Your task to perform on an android device: Search for pizza restaurants on Maps Image 0: 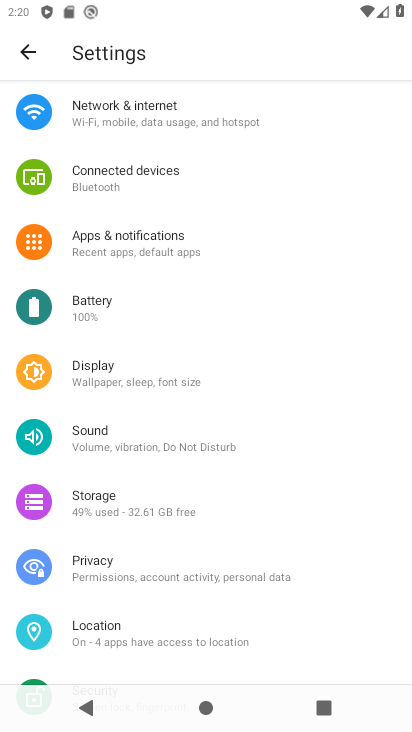
Step 0: press home button
Your task to perform on an android device: Search for pizza restaurants on Maps Image 1: 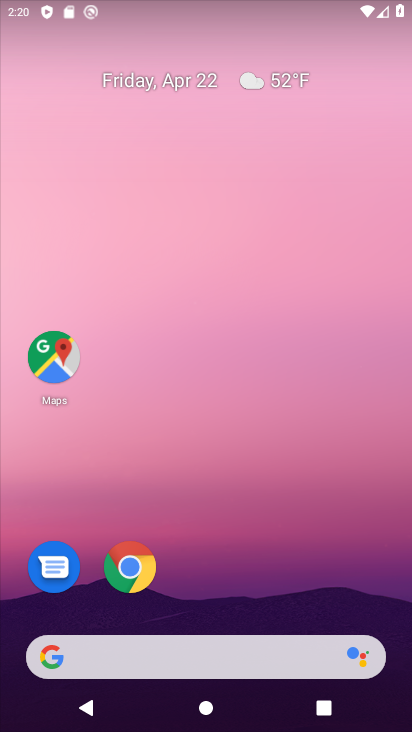
Step 1: click (57, 361)
Your task to perform on an android device: Search for pizza restaurants on Maps Image 2: 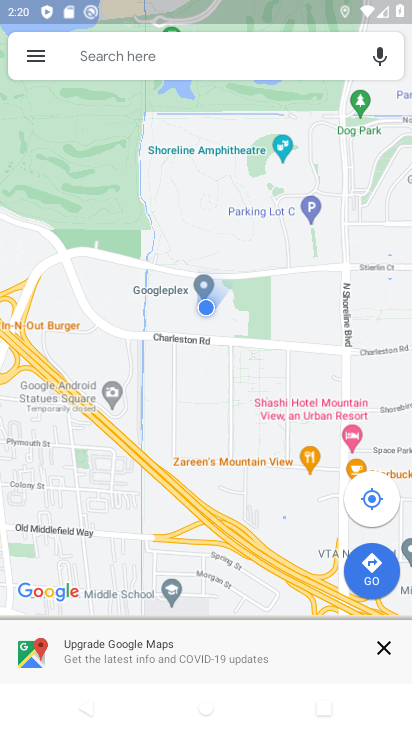
Step 2: click (171, 64)
Your task to perform on an android device: Search for pizza restaurants on Maps Image 3: 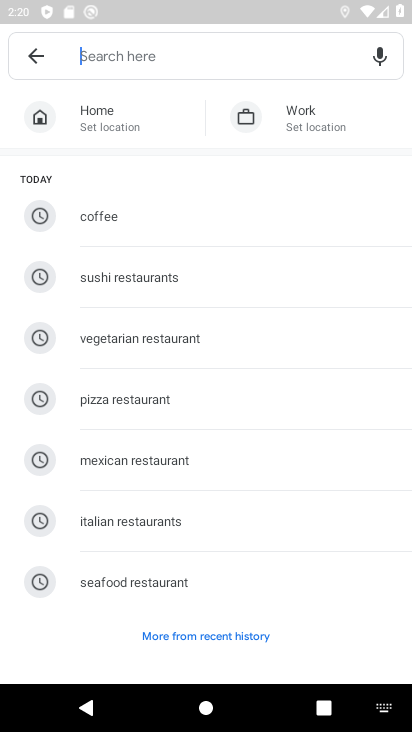
Step 3: click (145, 398)
Your task to perform on an android device: Search for pizza restaurants on Maps Image 4: 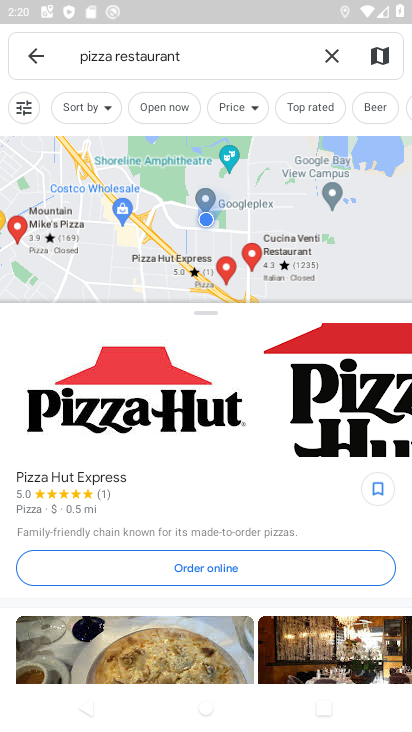
Step 4: task complete